Your task to perform on an android device: Go to ESPN.com Image 0: 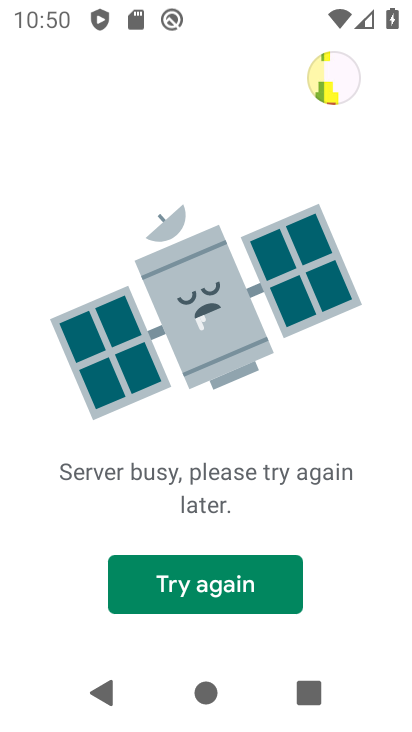
Step 0: press home button
Your task to perform on an android device: Go to ESPN.com Image 1: 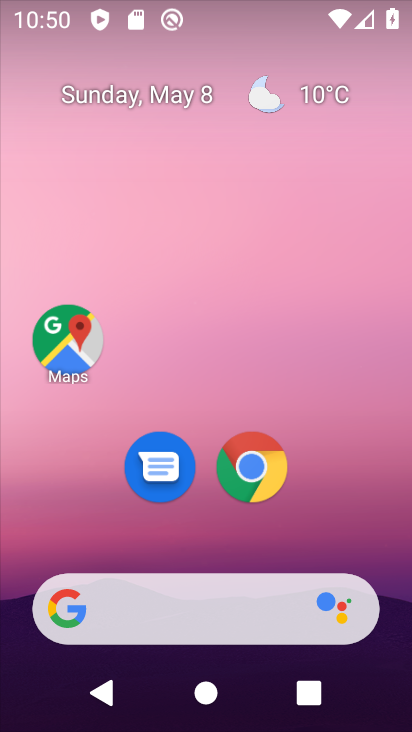
Step 1: click (248, 472)
Your task to perform on an android device: Go to ESPN.com Image 2: 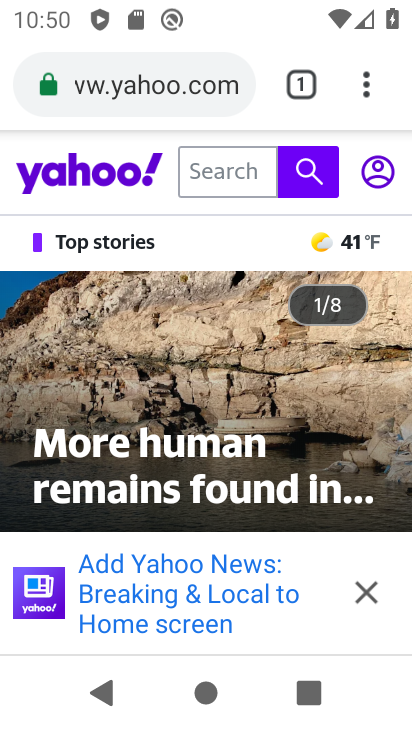
Step 2: click (310, 81)
Your task to perform on an android device: Go to ESPN.com Image 3: 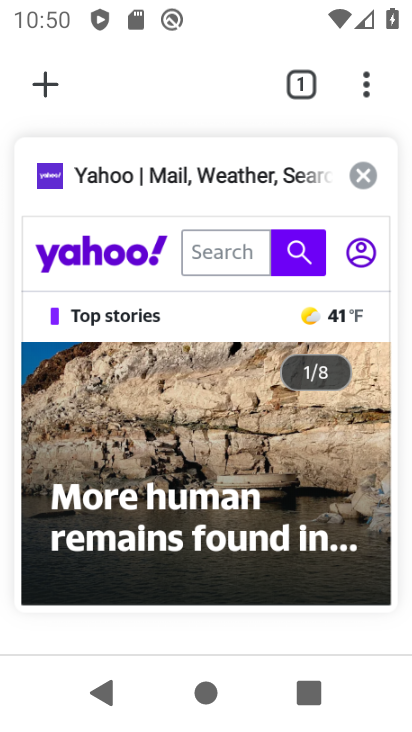
Step 3: click (38, 87)
Your task to perform on an android device: Go to ESPN.com Image 4: 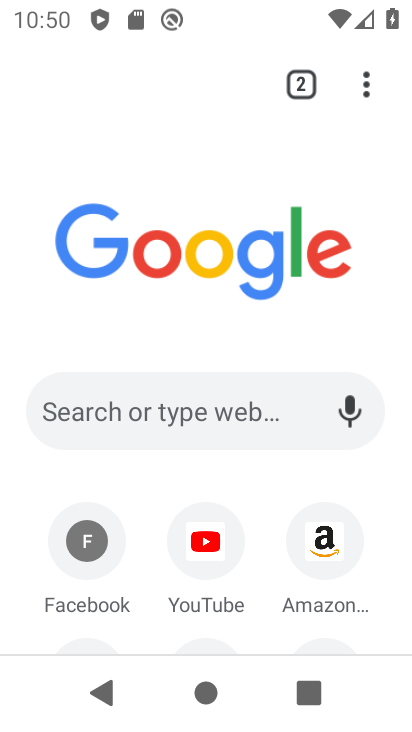
Step 4: drag from (16, 475) to (54, 284)
Your task to perform on an android device: Go to ESPN.com Image 5: 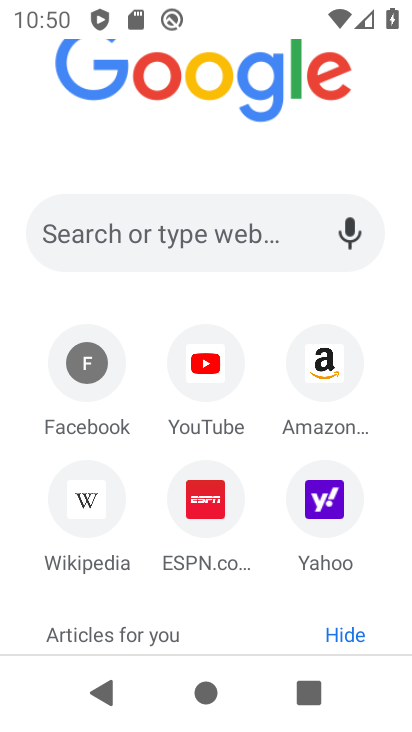
Step 5: click (211, 486)
Your task to perform on an android device: Go to ESPN.com Image 6: 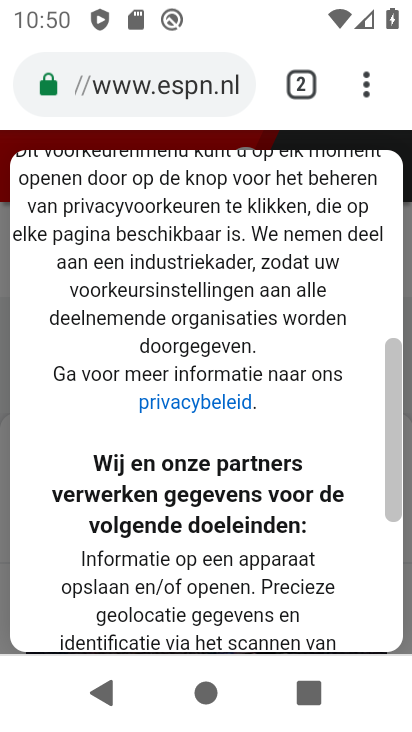
Step 6: task complete